Your task to perform on an android device: Open the settings Image 0: 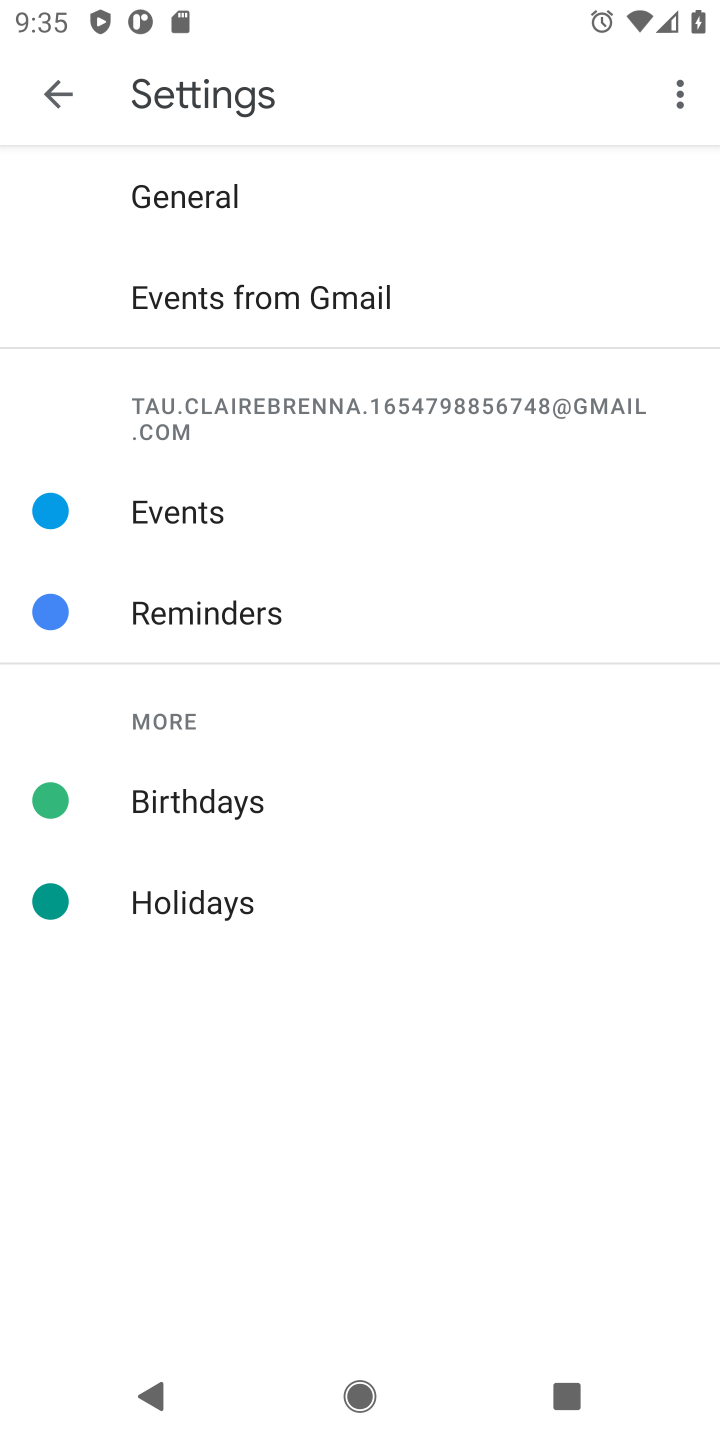
Step 0: click (61, 93)
Your task to perform on an android device: Open the settings Image 1: 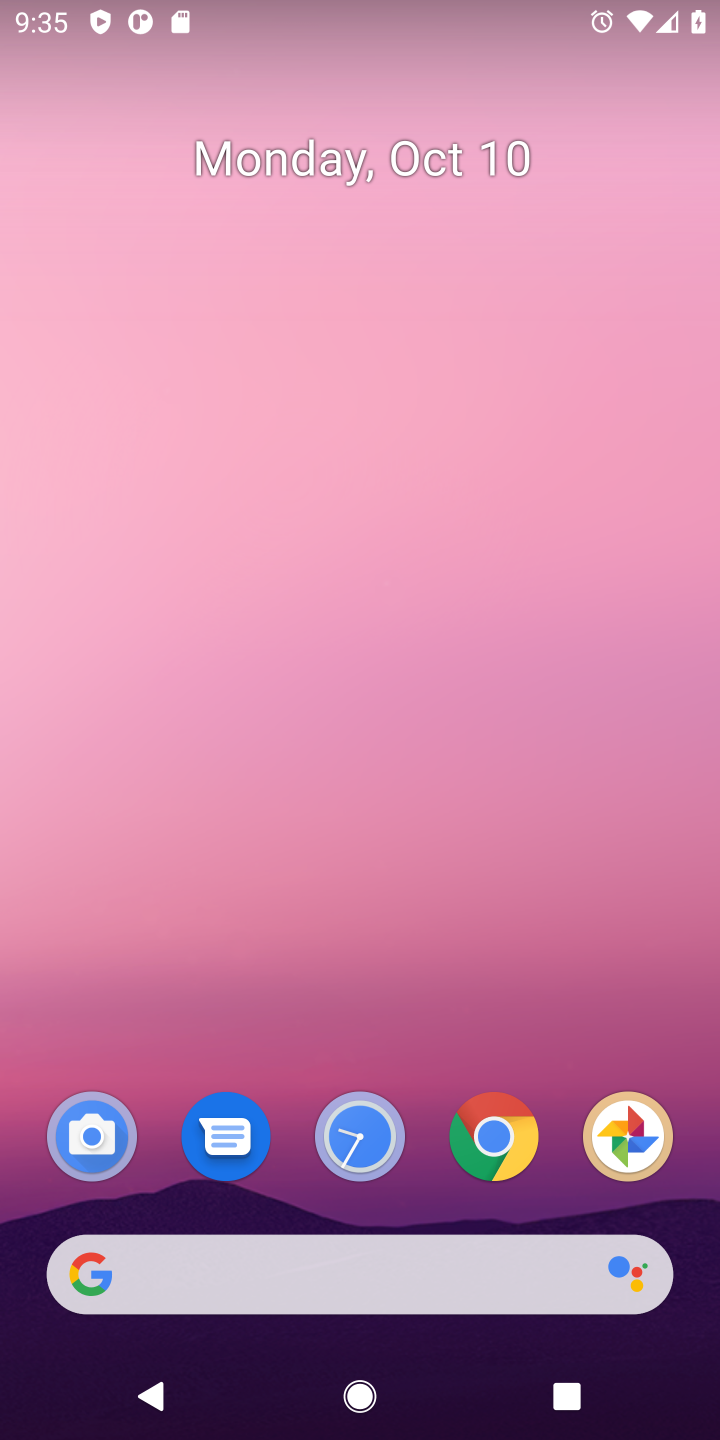
Step 1: drag from (352, 1036) to (372, 362)
Your task to perform on an android device: Open the settings Image 2: 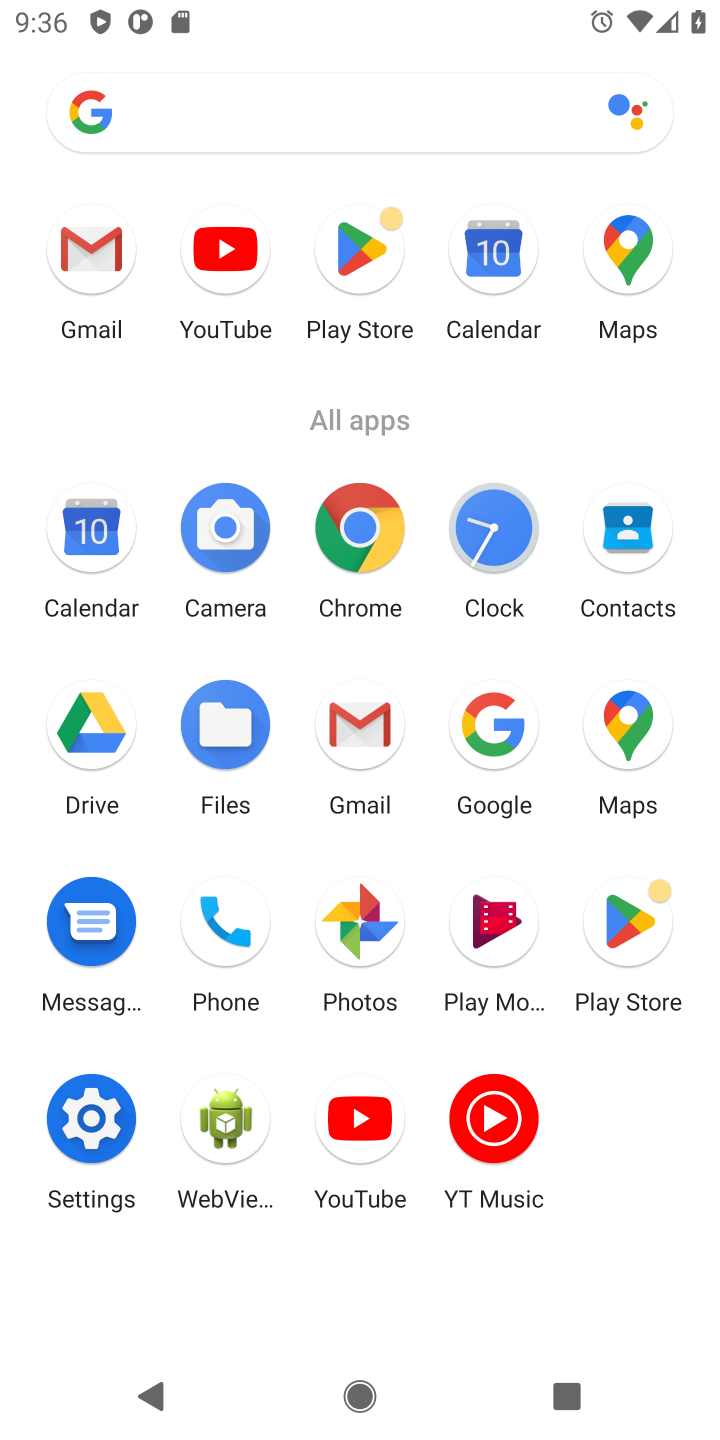
Step 2: click (90, 1142)
Your task to perform on an android device: Open the settings Image 3: 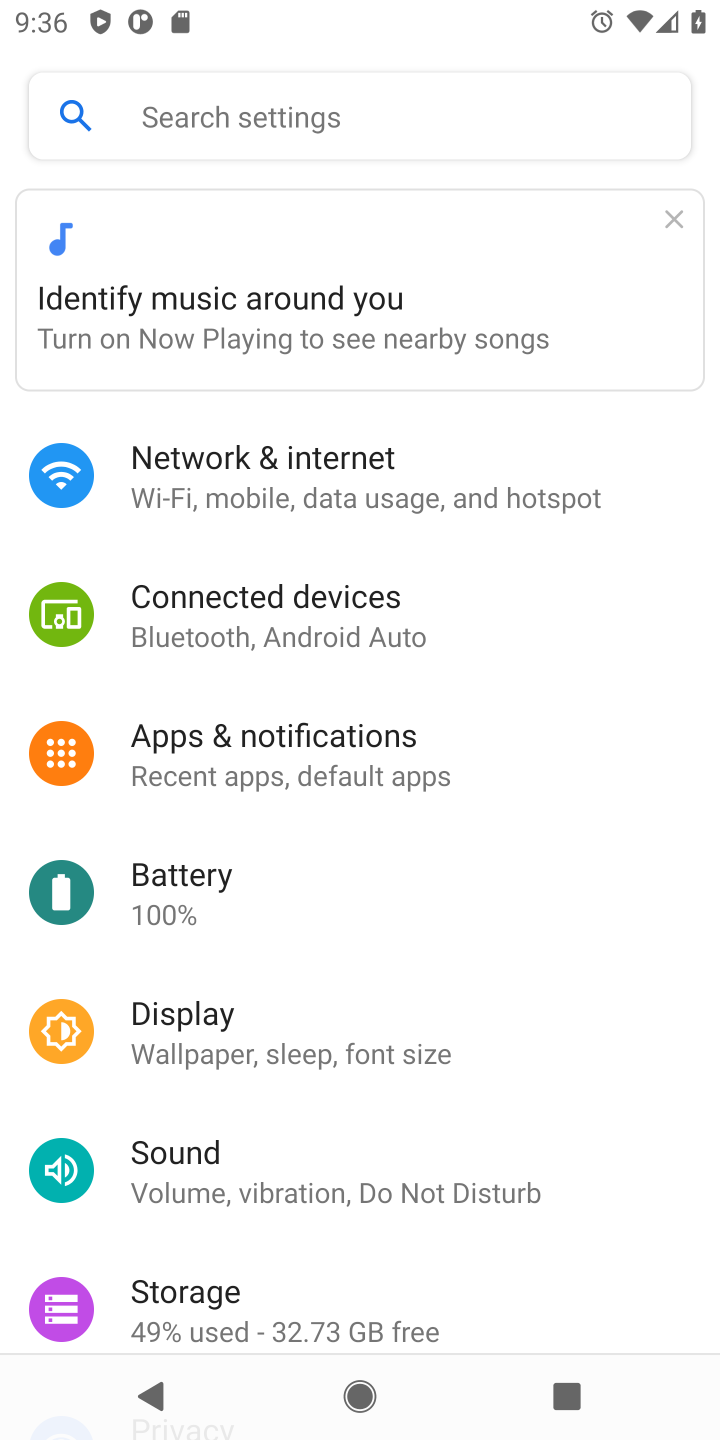
Step 3: task complete